Your task to perform on an android device: delete a single message in the gmail app Image 0: 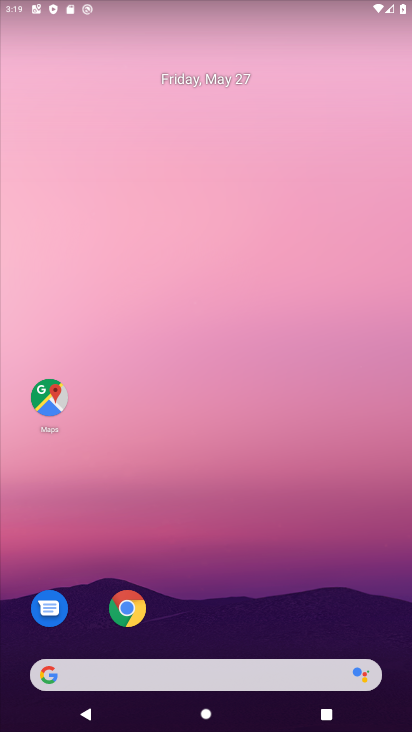
Step 0: drag from (210, 667) to (178, 317)
Your task to perform on an android device: delete a single message in the gmail app Image 1: 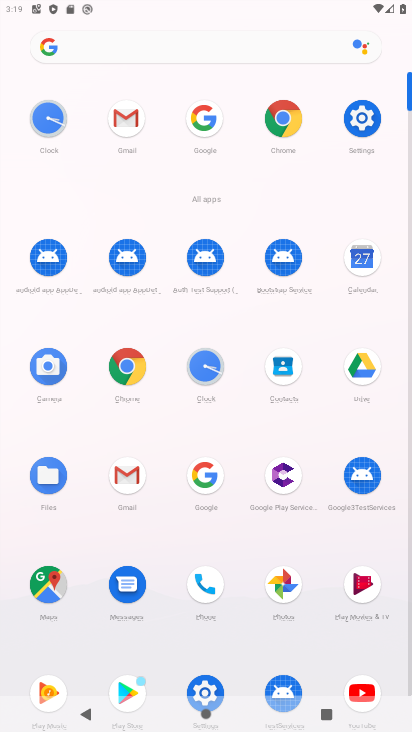
Step 1: click (124, 478)
Your task to perform on an android device: delete a single message in the gmail app Image 2: 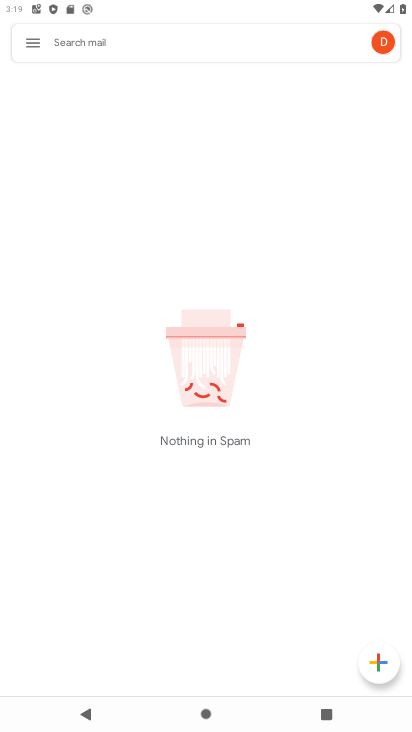
Step 2: click (28, 43)
Your task to perform on an android device: delete a single message in the gmail app Image 3: 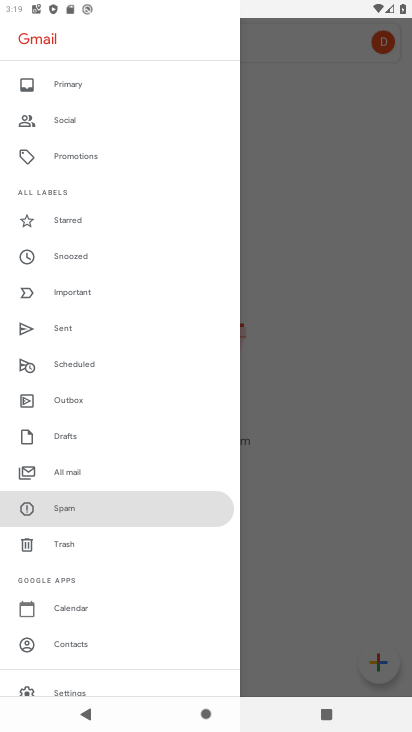
Step 3: click (72, 81)
Your task to perform on an android device: delete a single message in the gmail app Image 4: 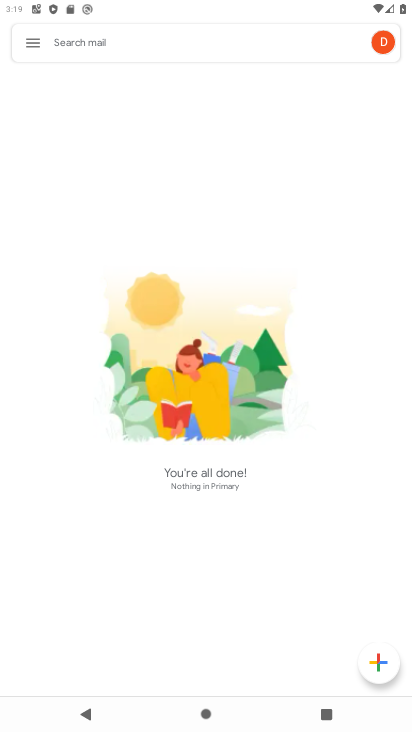
Step 4: task complete